Your task to perform on an android device: turn on the 12-hour format for clock Image 0: 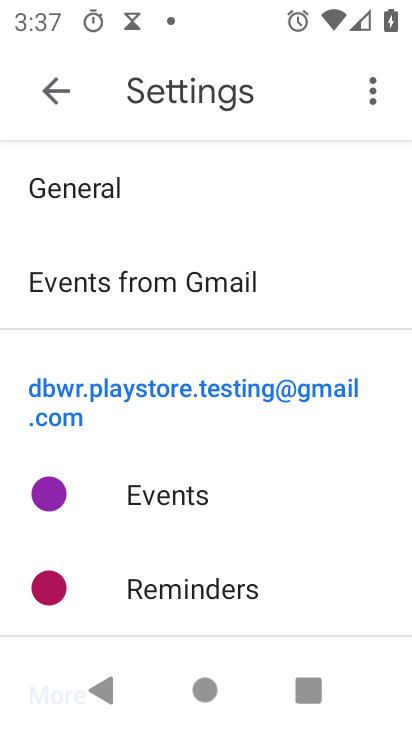
Step 0: press home button
Your task to perform on an android device: turn on the 12-hour format for clock Image 1: 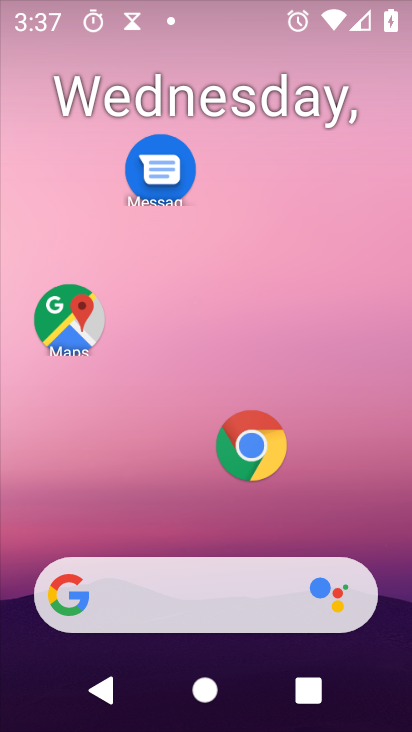
Step 1: drag from (12, 620) to (183, 159)
Your task to perform on an android device: turn on the 12-hour format for clock Image 2: 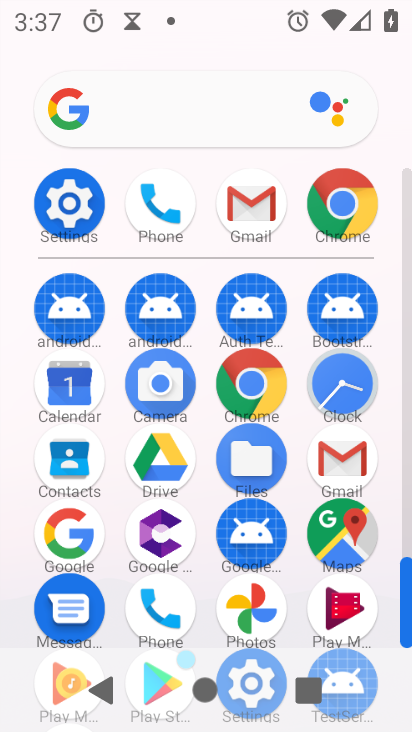
Step 2: click (340, 372)
Your task to perform on an android device: turn on the 12-hour format for clock Image 3: 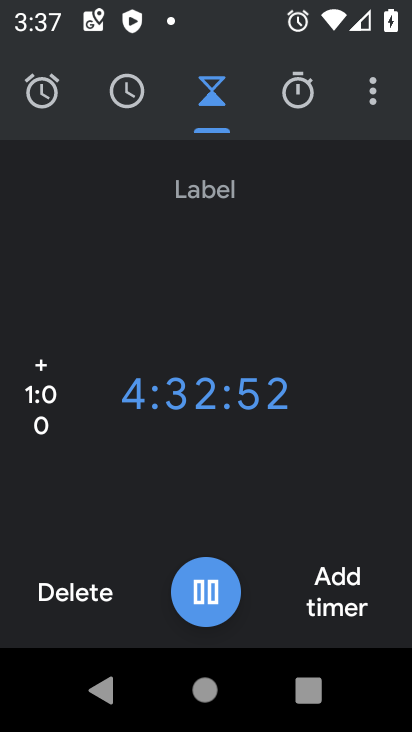
Step 3: click (369, 96)
Your task to perform on an android device: turn on the 12-hour format for clock Image 4: 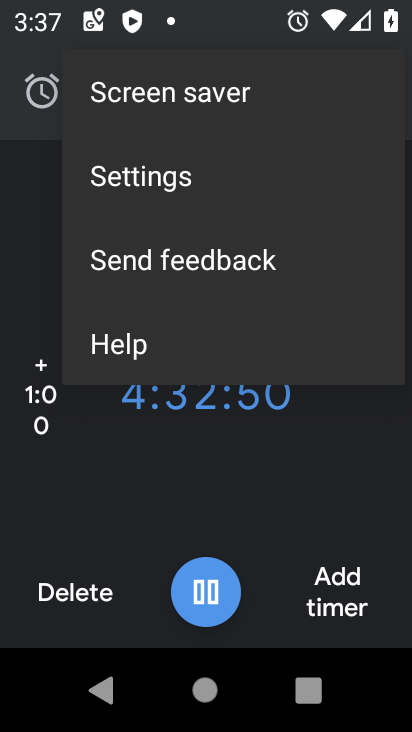
Step 4: click (183, 187)
Your task to perform on an android device: turn on the 12-hour format for clock Image 5: 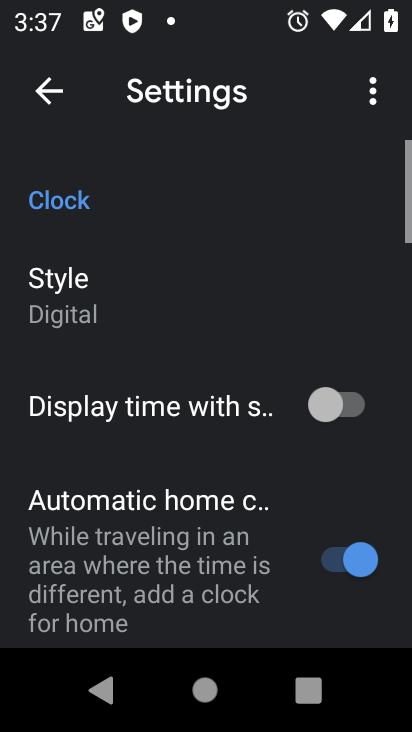
Step 5: drag from (18, 447) to (192, 100)
Your task to perform on an android device: turn on the 12-hour format for clock Image 6: 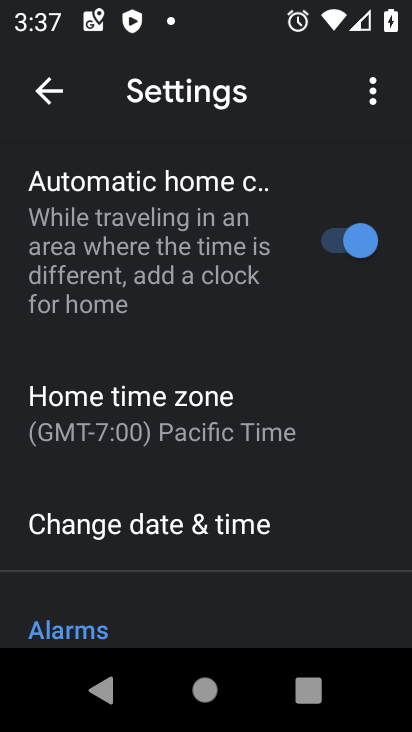
Step 6: click (184, 520)
Your task to perform on an android device: turn on the 12-hour format for clock Image 7: 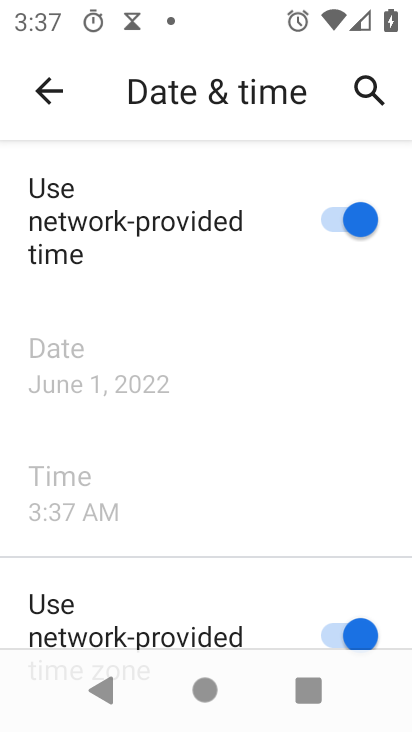
Step 7: task complete